Your task to perform on an android device: Check the news Image 0: 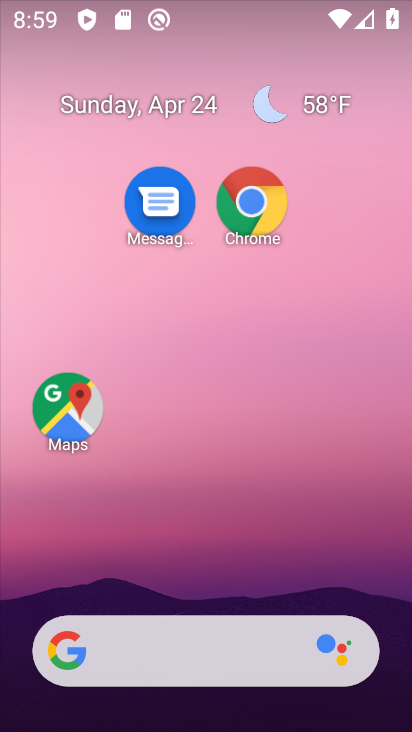
Step 0: click (175, 166)
Your task to perform on an android device: Check the news Image 1: 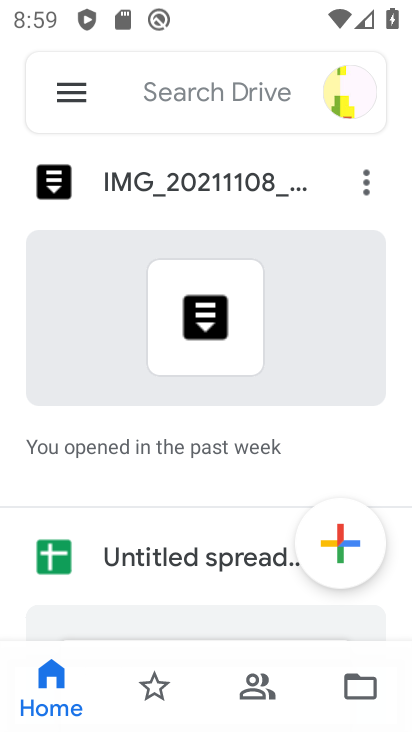
Step 1: task complete